Your task to perform on an android device: turn on wifi Image 0: 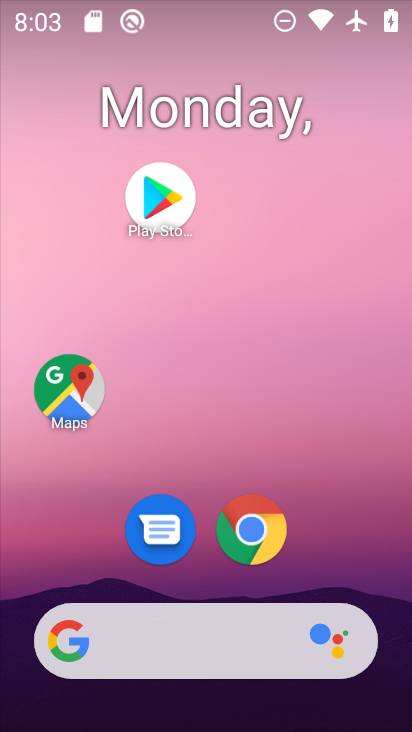
Step 0: drag from (322, 523) to (137, 0)
Your task to perform on an android device: turn on wifi Image 1: 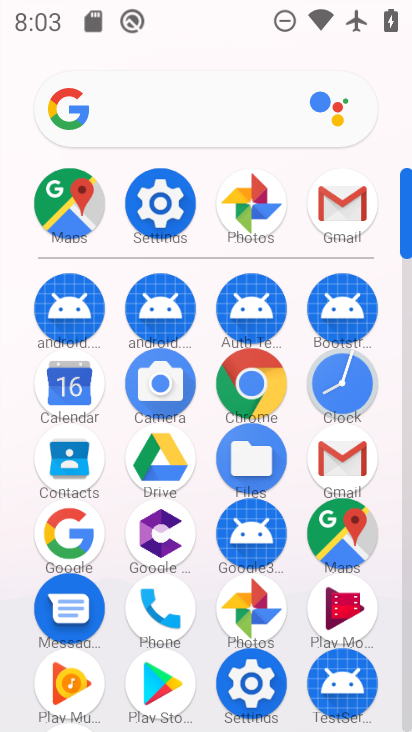
Step 1: click (159, 201)
Your task to perform on an android device: turn on wifi Image 2: 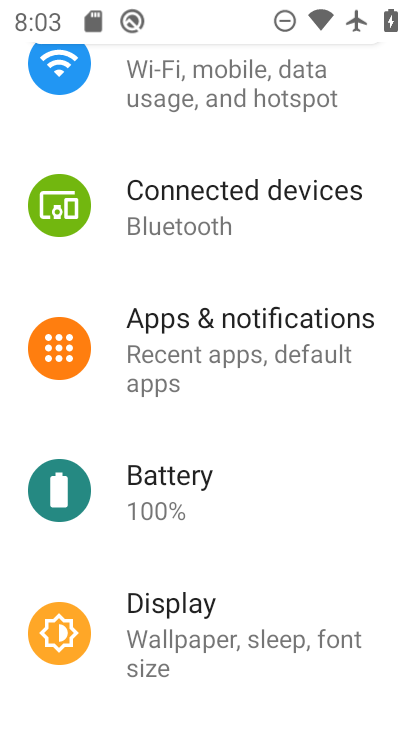
Step 2: click (133, 66)
Your task to perform on an android device: turn on wifi Image 3: 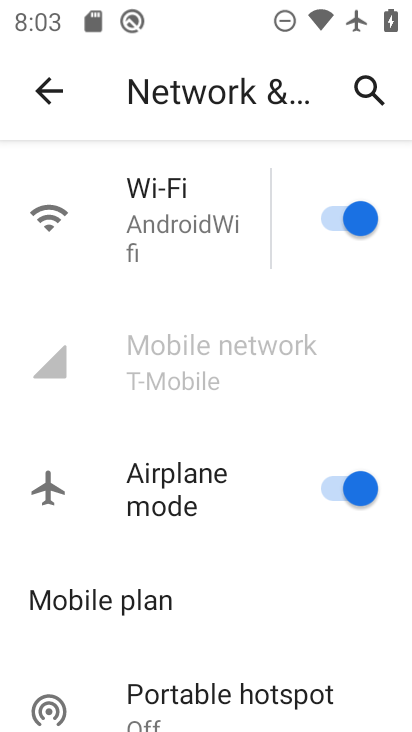
Step 3: task complete